Your task to perform on an android device: turn off notifications settings in the gmail app Image 0: 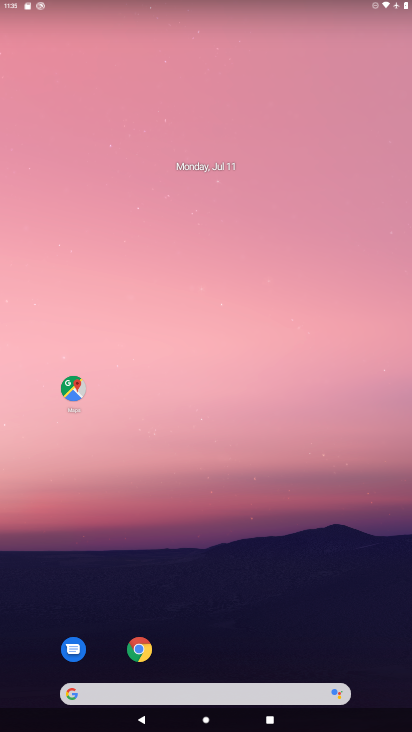
Step 0: drag from (303, 508) to (241, 13)
Your task to perform on an android device: turn off notifications settings in the gmail app Image 1: 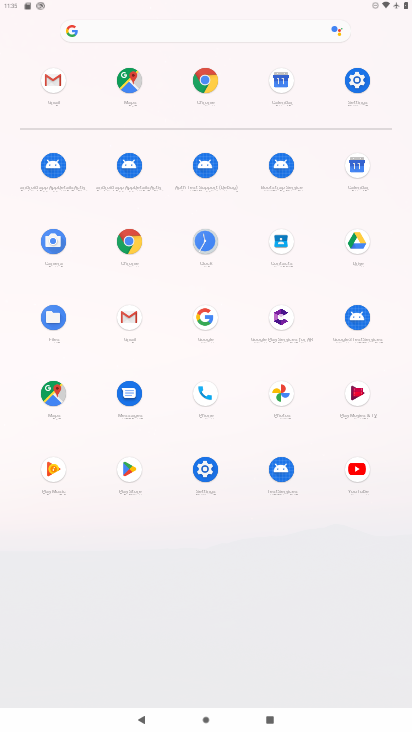
Step 1: click (52, 75)
Your task to perform on an android device: turn off notifications settings in the gmail app Image 2: 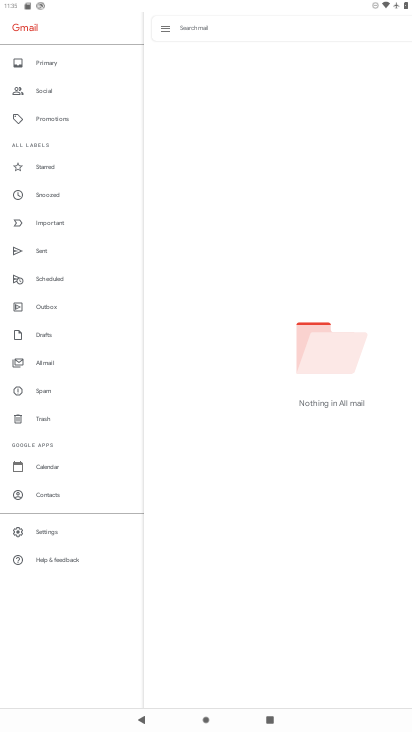
Step 2: click (39, 523)
Your task to perform on an android device: turn off notifications settings in the gmail app Image 3: 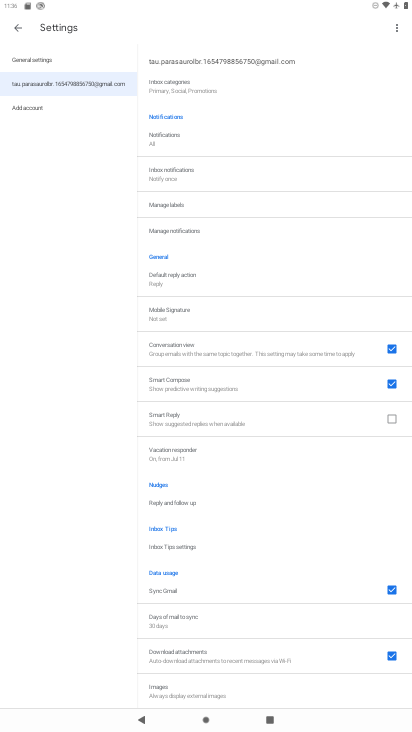
Step 3: click (194, 232)
Your task to perform on an android device: turn off notifications settings in the gmail app Image 4: 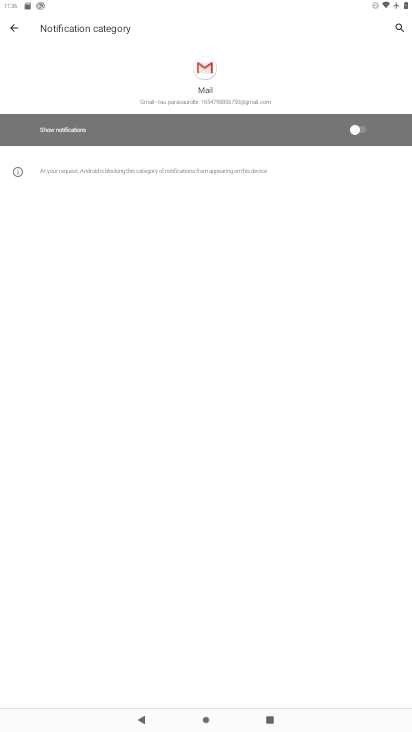
Step 4: task complete